Your task to perform on an android device: check google app version Image 0: 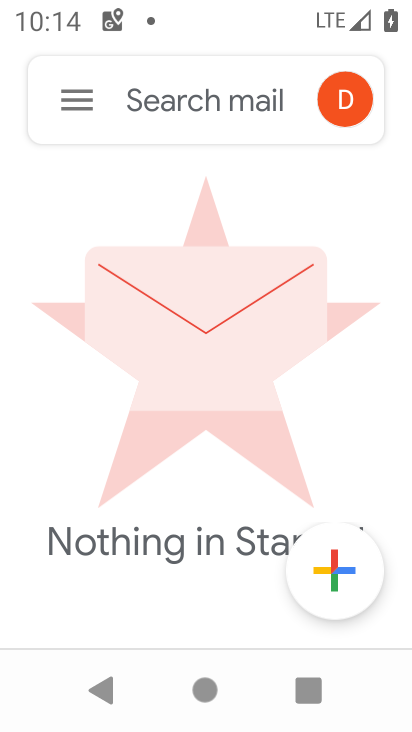
Step 0: press home button
Your task to perform on an android device: check google app version Image 1: 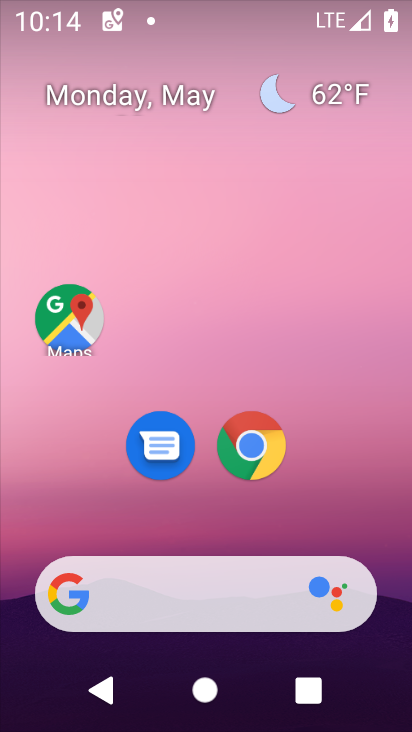
Step 1: drag from (397, 613) to (297, 61)
Your task to perform on an android device: check google app version Image 2: 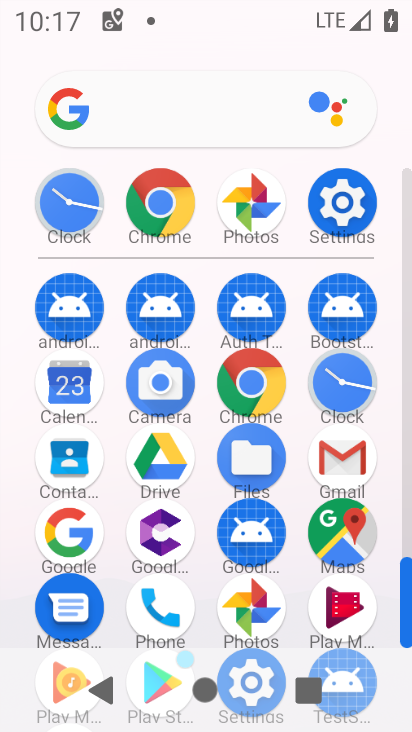
Step 2: click (47, 537)
Your task to perform on an android device: check google app version Image 3: 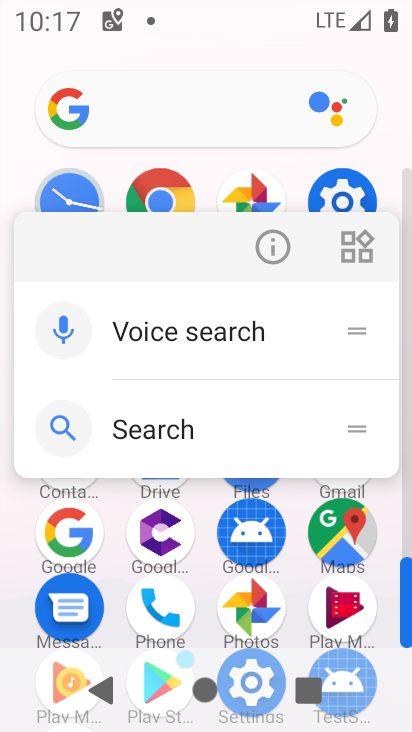
Step 3: click (273, 232)
Your task to perform on an android device: check google app version Image 4: 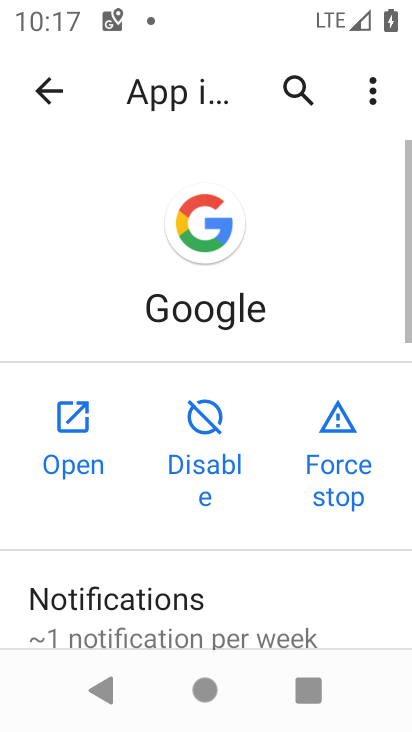
Step 4: drag from (196, 581) to (177, 22)
Your task to perform on an android device: check google app version Image 5: 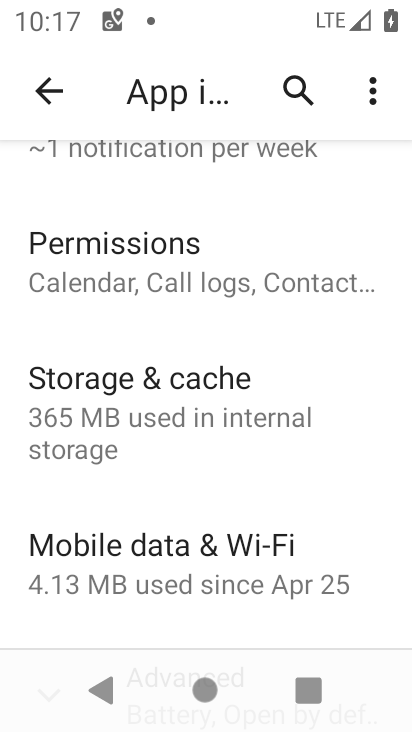
Step 5: drag from (203, 562) to (108, 80)
Your task to perform on an android device: check google app version Image 6: 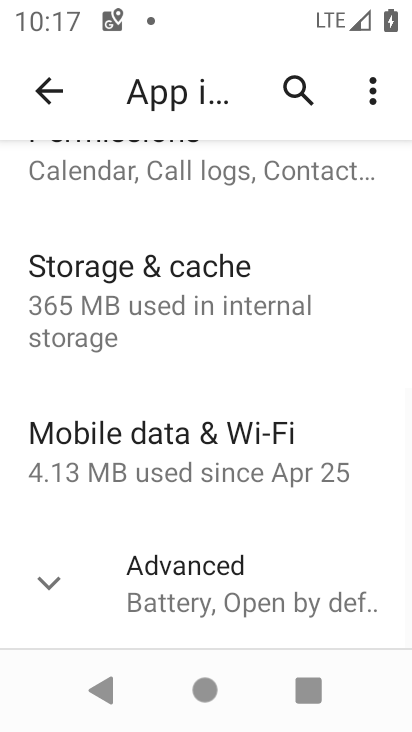
Step 6: click (87, 600)
Your task to perform on an android device: check google app version Image 7: 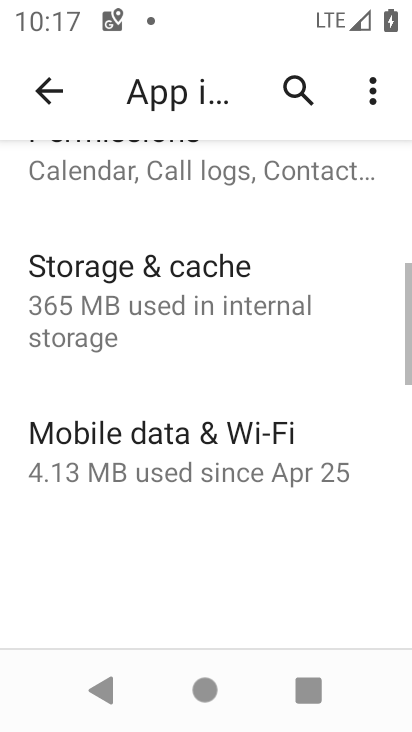
Step 7: task complete